Your task to perform on an android device: search for starred emails in the gmail app Image 0: 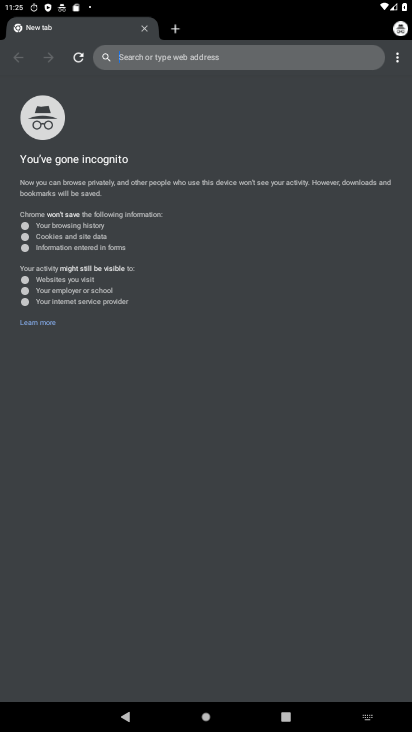
Step 0: press home button
Your task to perform on an android device: search for starred emails in the gmail app Image 1: 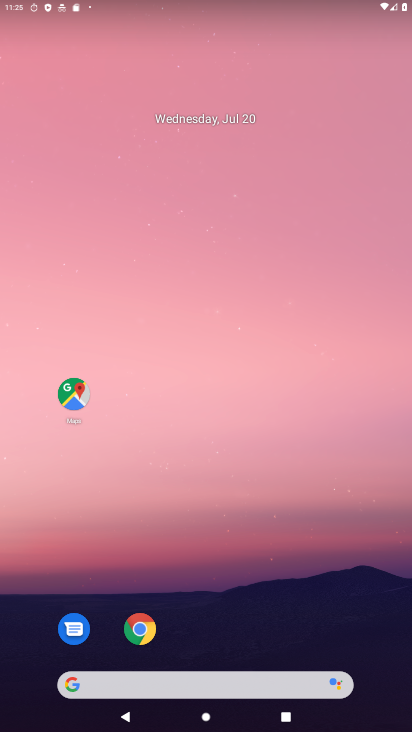
Step 1: drag from (280, 648) to (326, 31)
Your task to perform on an android device: search for starred emails in the gmail app Image 2: 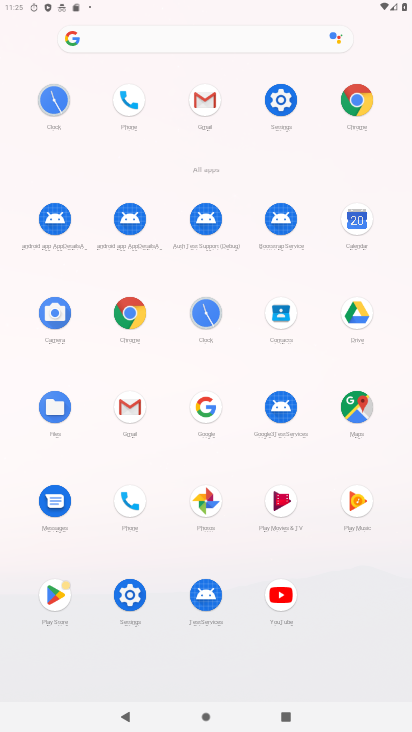
Step 2: click (131, 401)
Your task to perform on an android device: search for starred emails in the gmail app Image 3: 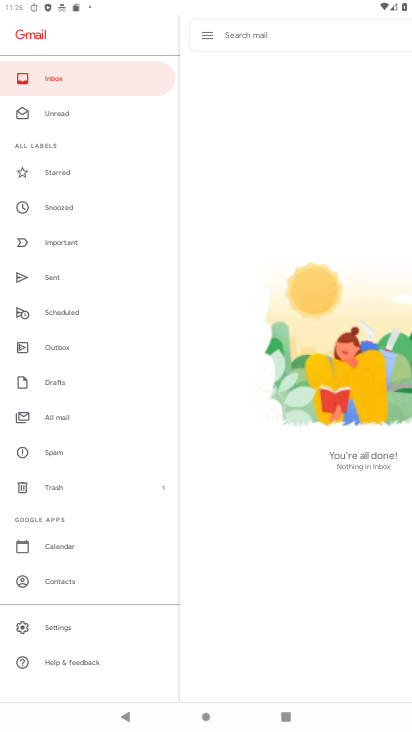
Step 3: click (56, 161)
Your task to perform on an android device: search for starred emails in the gmail app Image 4: 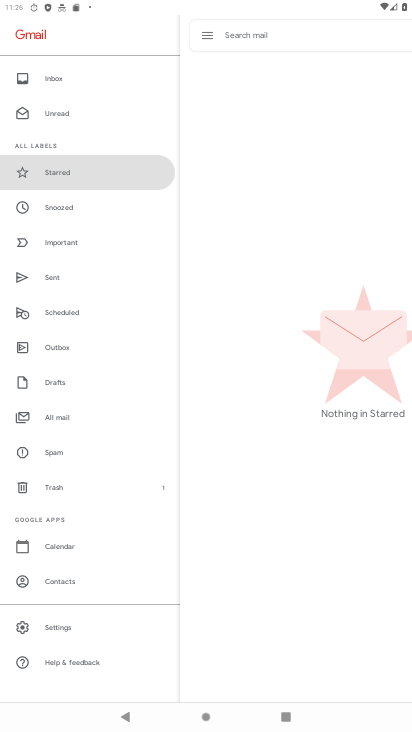
Step 4: task complete